Your task to perform on an android device: change notification settings in the gmail app Image 0: 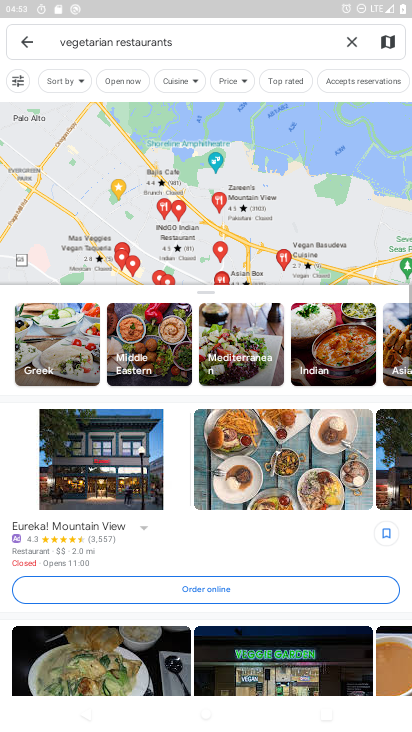
Step 0: press home button
Your task to perform on an android device: change notification settings in the gmail app Image 1: 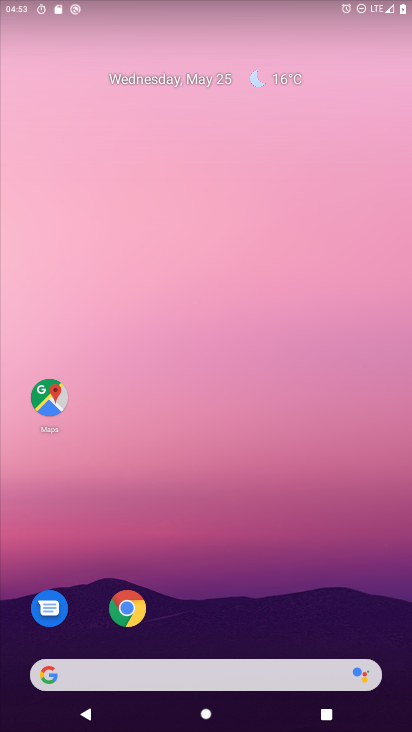
Step 1: drag from (248, 580) to (206, 186)
Your task to perform on an android device: change notification settings in the gmail app Image 2: 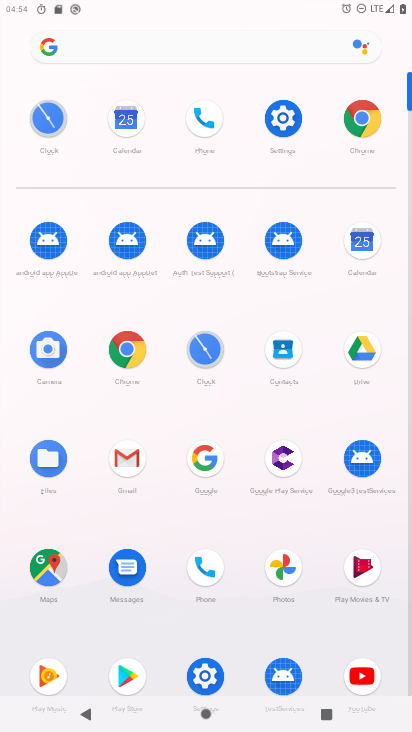
Step 2: click (123, 462)
Your task to perform on an android device: change notification settings in the gmail app Image 3: 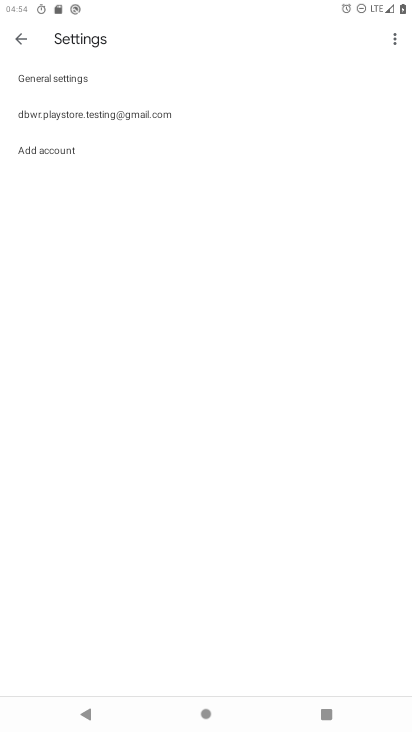
Step 3: click (138, 121)
Your task to perform on an android device: change notification settings in the gmail app Image 4: 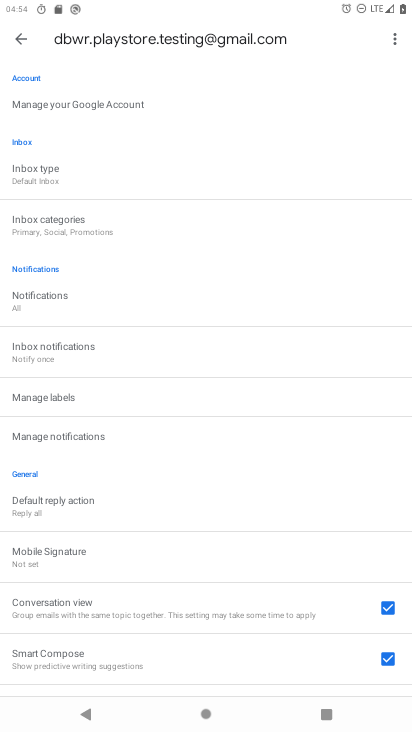
Step 4: click (76, 433)
Your task to perform on an android device: change notification settings in the gmail app Image 5: 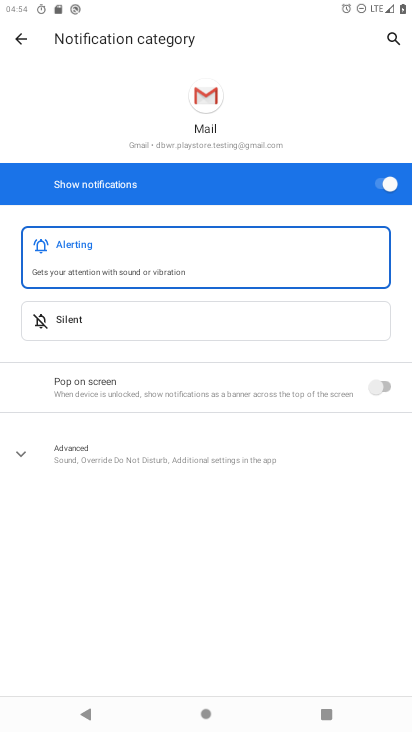
Step 5: click (366, 179)
Your task to perform on an android device: change notification settings in the gmail app Image 6: 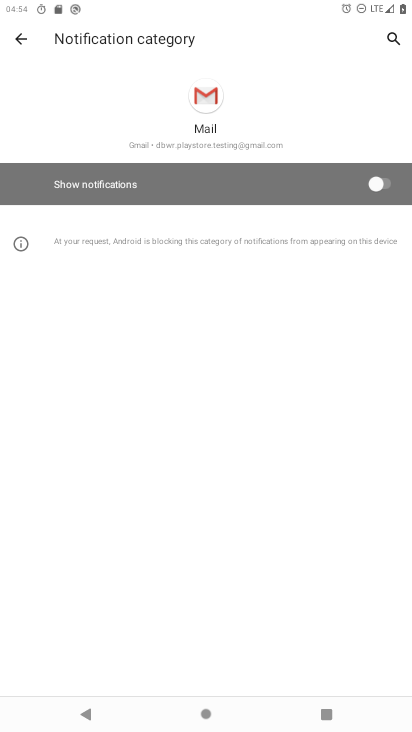
Step 6: task complete